Your task to perform on an android device: change the upload size in google photos Image 0: 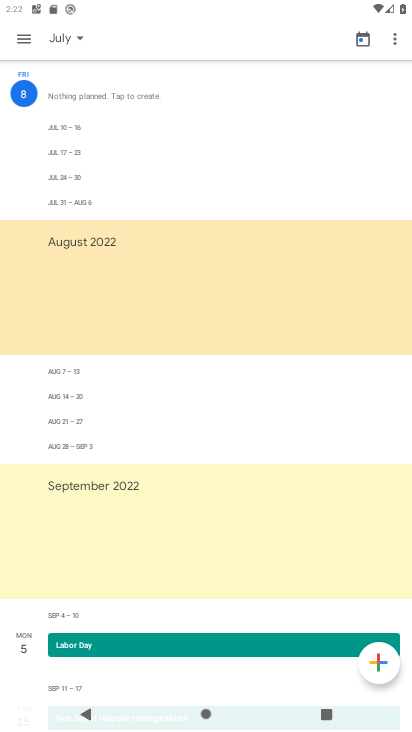
Step 0: press home button
Your task to perform on an android device: change the upload size in google photos Image 1: 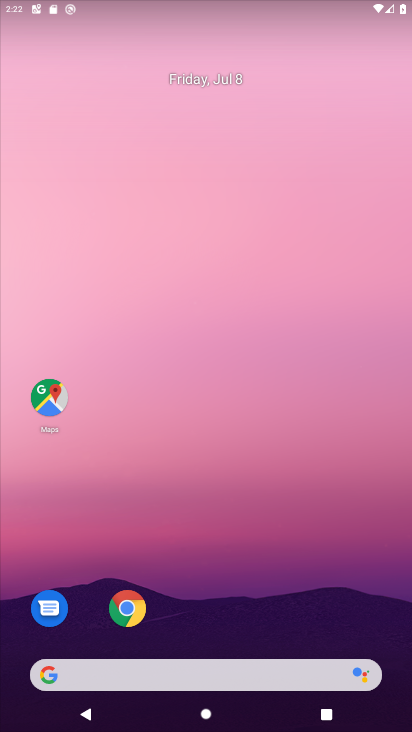
Step 1: drag from (179, 632) to (181, 300)
Your task to perform on an android device: change the upload size in google photos Image 2: 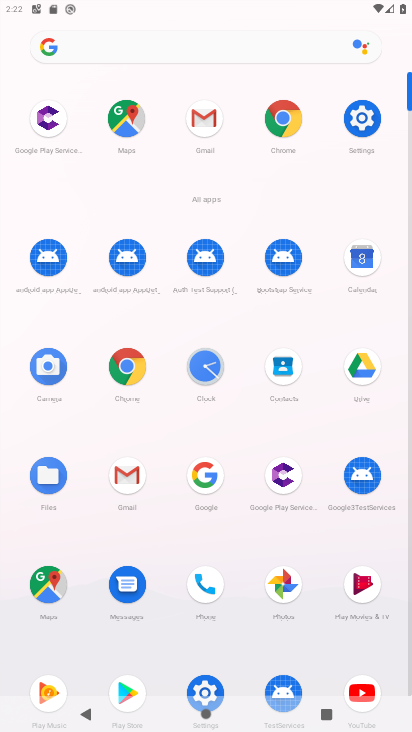
Step 2: click (266, 578)
Your task to perform on an android device: change the upload size in google photos Image 3: 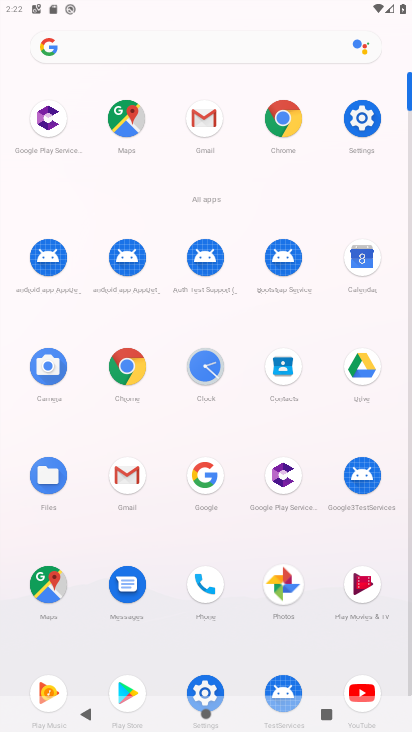
Step 3: click (276, 576)
Your task to perform on an android device: change the upload size in google photos Image 4: 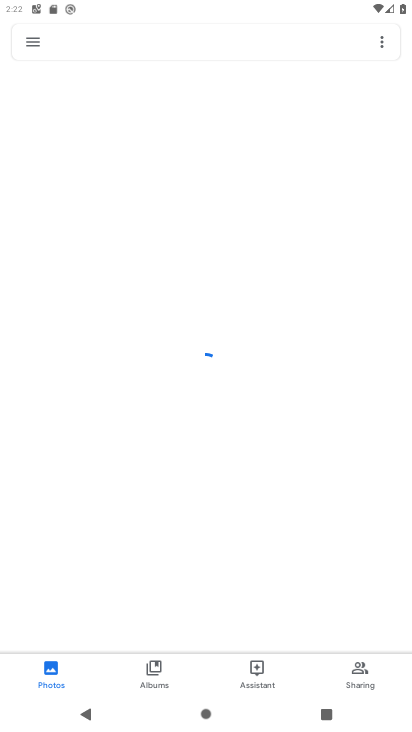
Step 4: click (33, 37)
Your task to perform on an android device: change the upload size in google photos Image 5: 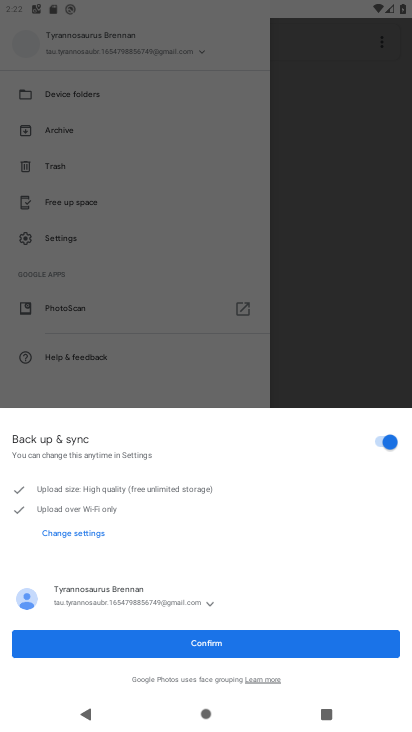
Step 5: click (218, 648)
Your task to perform on an android device: change the upload size in google photos Image 6: 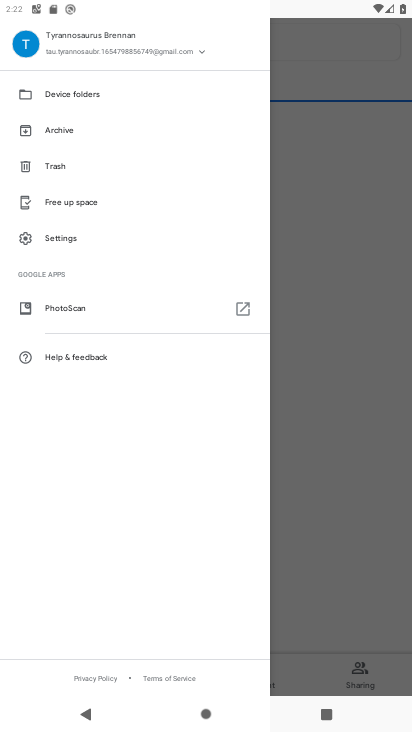
Step 6: click (62, 238)
Your task to perform on an android device: change the upload size in google photos Image 7: 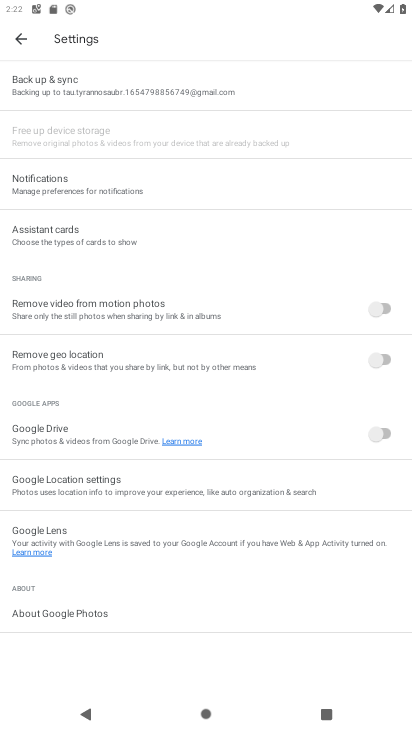
Step 7: click (90, 82)
Your task to perform on an android device: change the upload size in google photos Image 8: 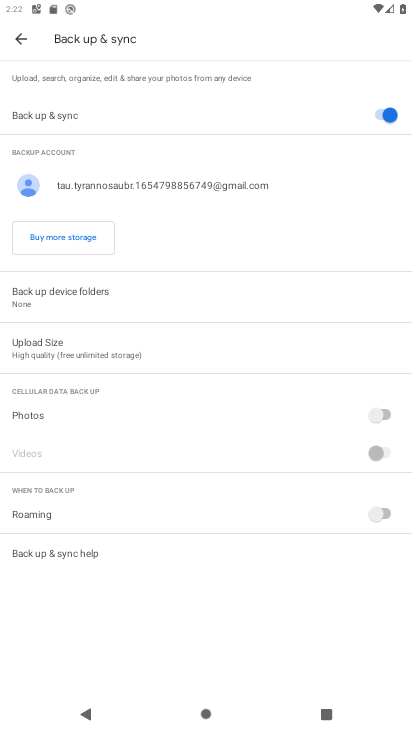
Step 8: click (141, 344)
Your task to perform on an android device: change the upload size in google photos Image 9: 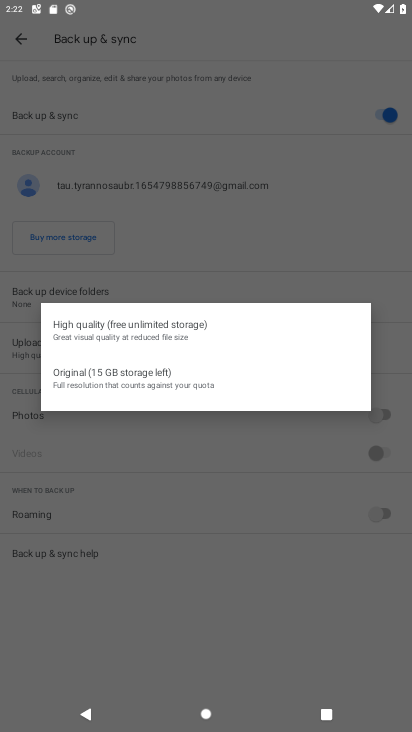
Step 9: click (152, 372)
Your task to perform on an android device: change the upload size in google photos Image 10: 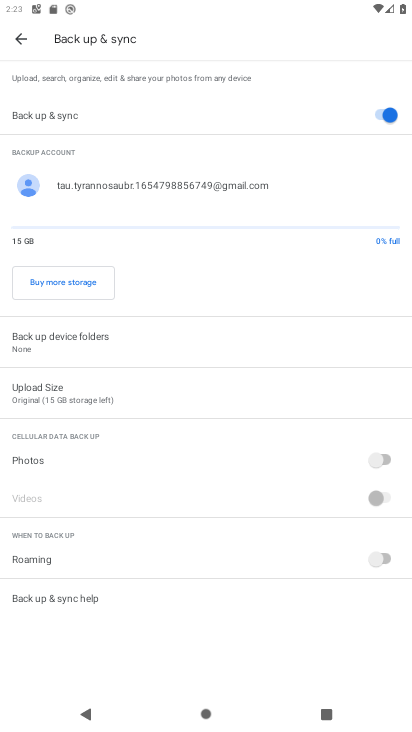
Step 10: task complete